Your task to perform on an android device: turn off priority inbox in the gmail app Image 0: 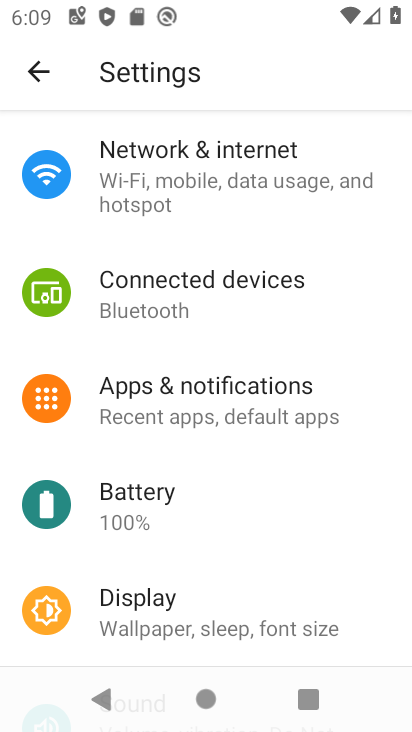
Step 0: press home button
Your task to perform on an android device: turn off priority inbox in the gmail app Image 1: 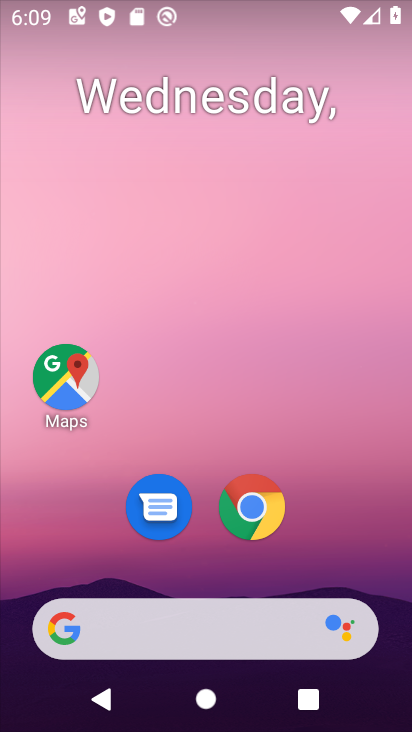
Step 1: drag from (351, 639) to (309, 0)
Your task to perform on an android device: turn off priority inbox in the gmail app Image 2: 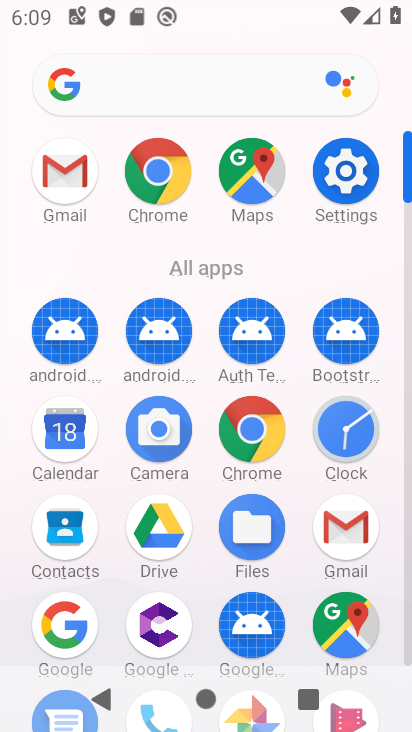
Step 2: click (336, 521)
Your task to perform on an android device: turn off priority inbox in the gmail app Image 3: 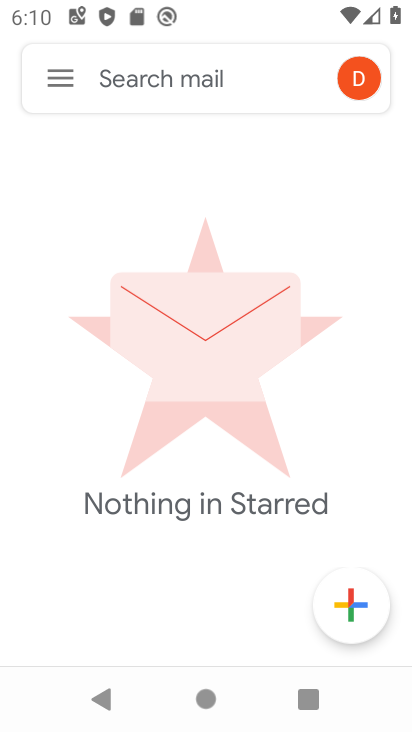
Step 3: click (52, 89)
Your task to perform on an android device: turn off priority inbox in the gmail app Image 4: 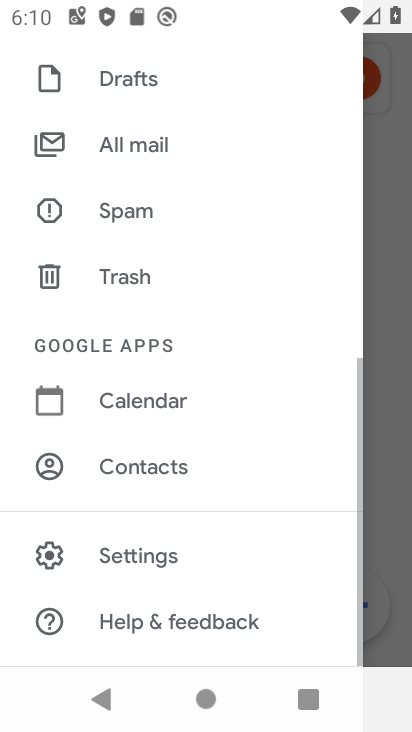
Step 4: click (115, 560)
Your task to perform on an android device: turn off priority inbox in the gmail app Image 5: 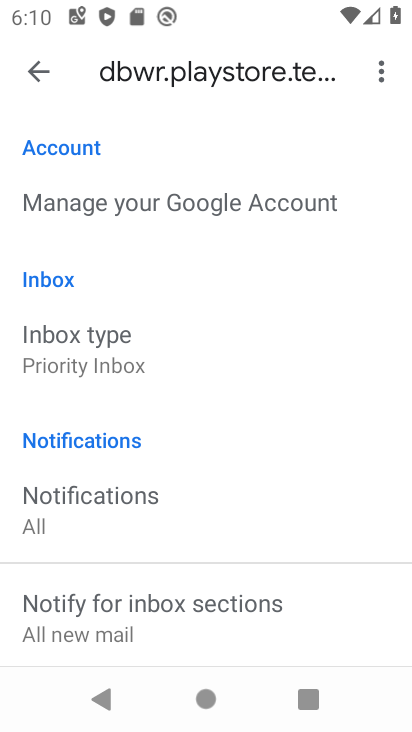
Step 5: click (111, 367)
Your task to perform on an android device: turn off priority inbox in the gmail app Image 6: 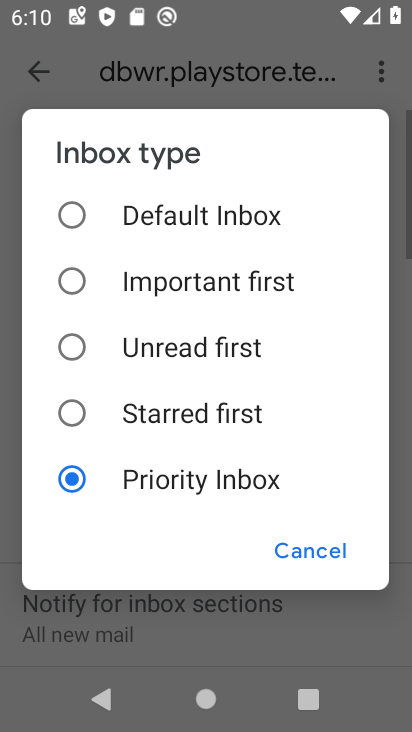
Step 6: click (76, 214)
Your task to perform on an android device: turn off priority inbox in the gmail app Image 7: 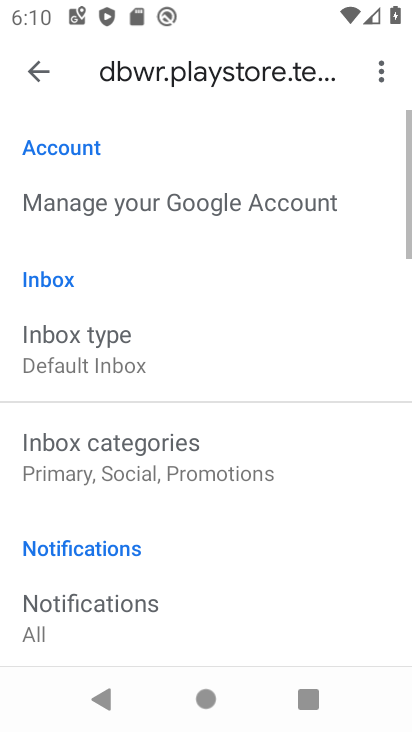
Step 7: task complete